Your task to perform on an android device: change keyboard looks Image 0: 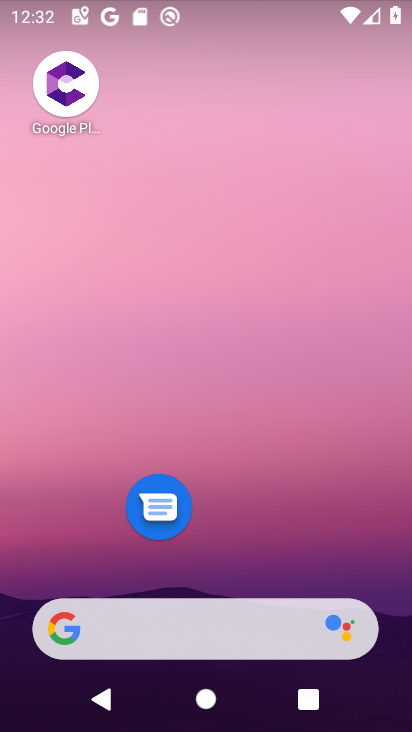
Step 0: drag from (299, 571) to (295, 121)
Your task to perform on an android device: change keyboard looks Image 1: 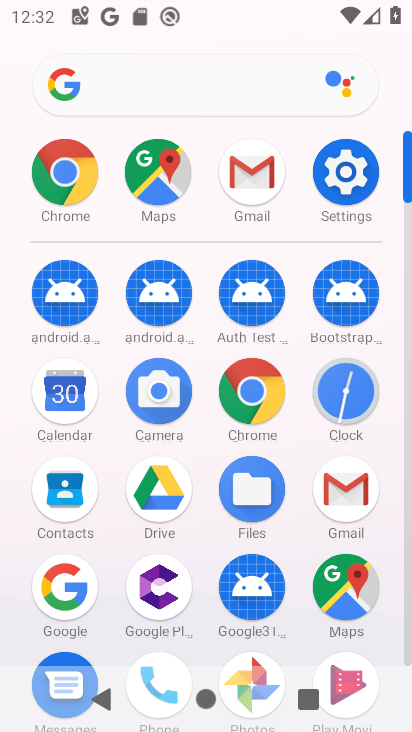
Step 1: click (350, 162)
Your task to perform on an android device: change keyboard looks Image 2: 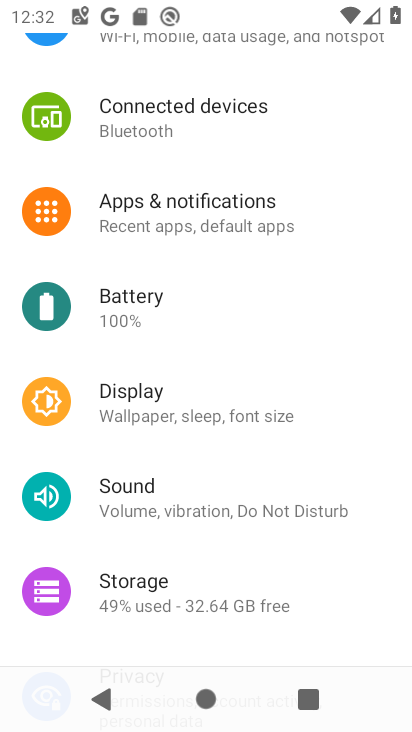
Step 2: drag from (326, 597) to (324, 279)
Your task to perform on an android device: change keyboard looks Image 3: 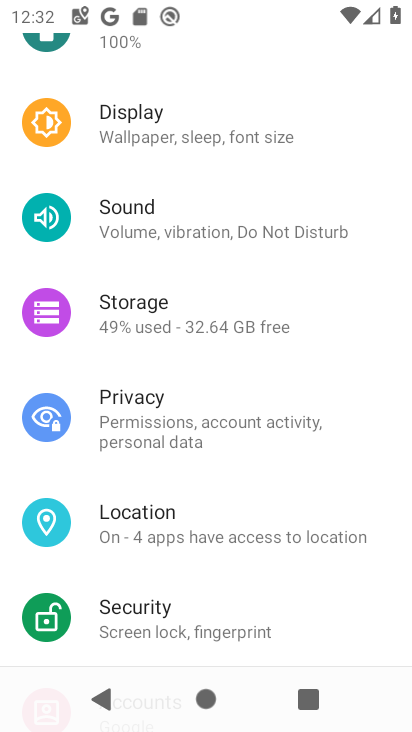
Step 3: drag from (316, 582) to (324, 265)
Your task to perform on an android device: change keyboard looks Image 4: 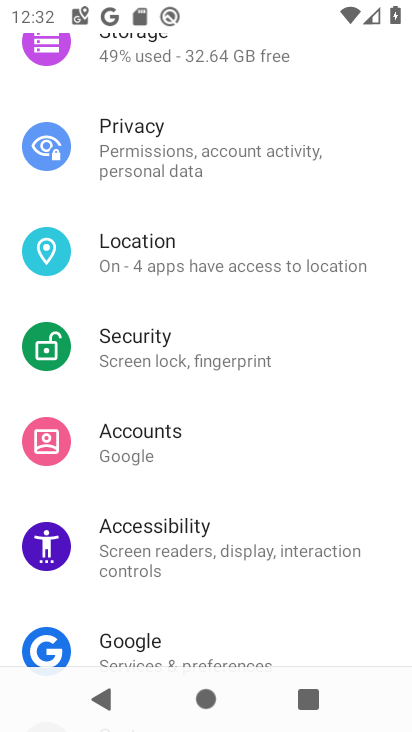
Step 4: drag from (321, 546) to (327, 240)
Your task to perform on an android device: change keyboard looks Image 5: 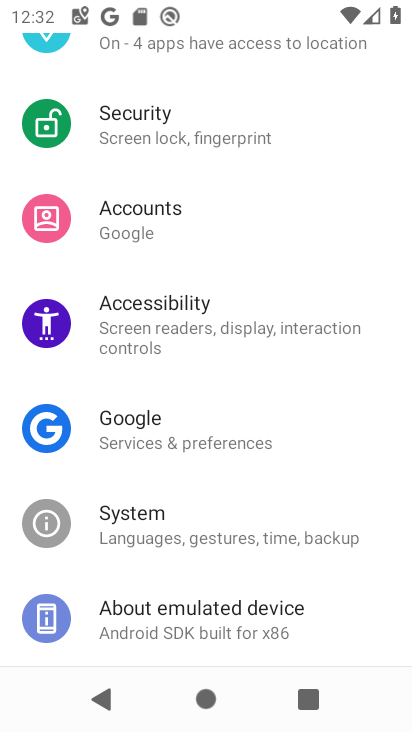
Step 5: click (179, 527)
Your task to perform on an android device: change keyboard looks Image 6: 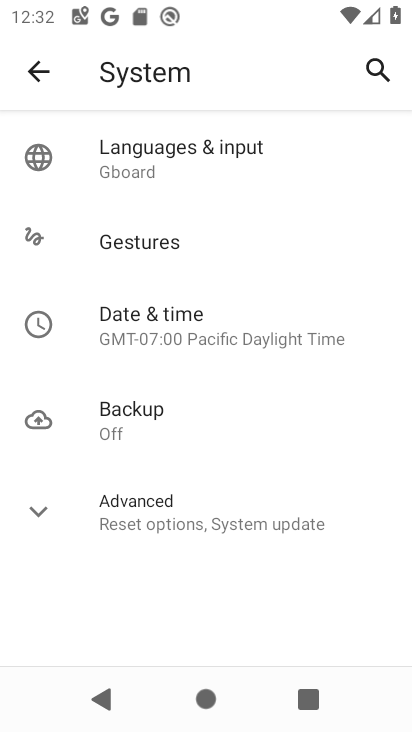
Step 6: click (146, 152)
Your task to perform on an android device: change keyboard looks Image 7: 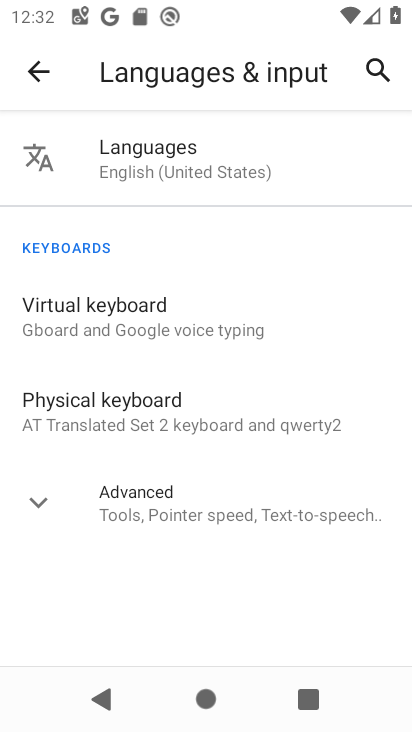
Step 7: click (81, 300)
Your task to perform on an android device: change keyboard looks Image 8: 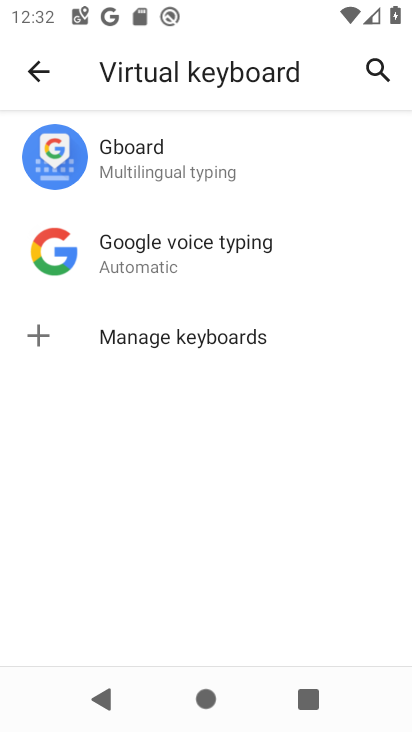
Step 8: click (111, 168)
Your task to perform on an android device: change keyboard looks Image 9: 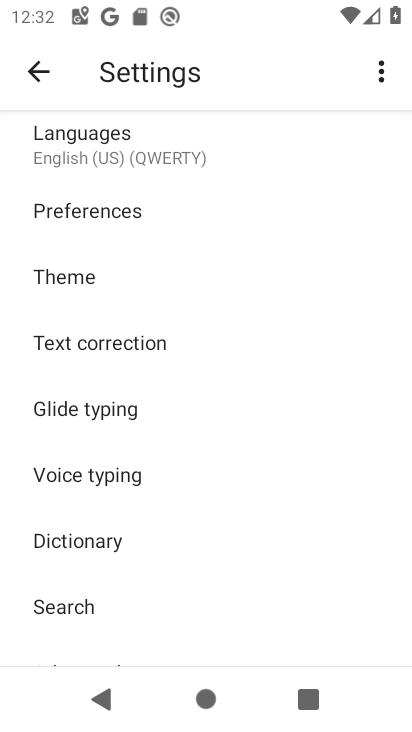
Step 9: click (47, 277)
Your task to perform on an android device: change keyboard looks Image 10: 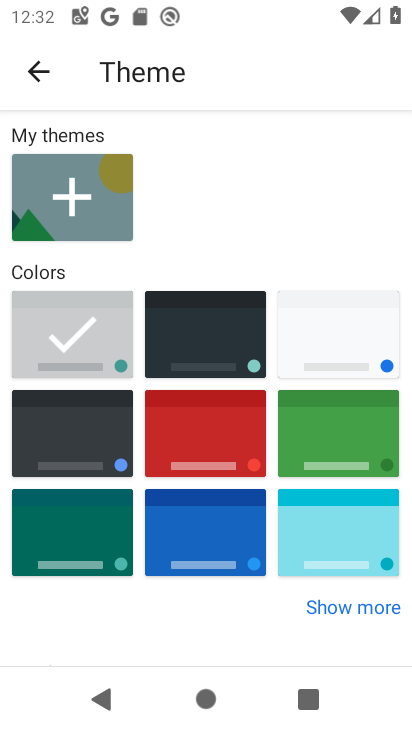
Step 10: click (183, 317)
Your task to perform on an android device: change keyboard looks Image 11: 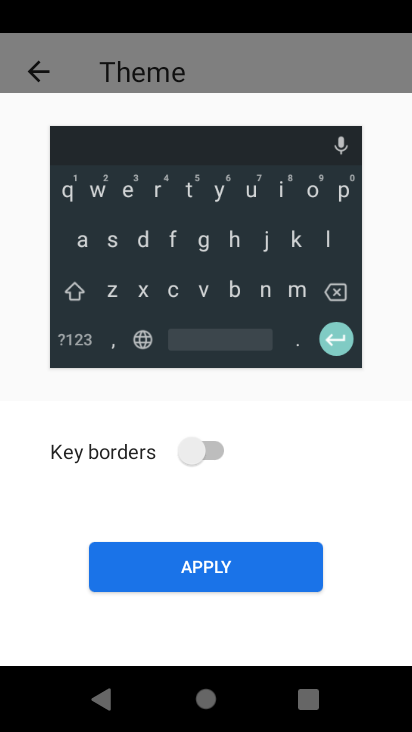
Step 11: click (196, 444)
Your task to perform on an android device: change keyboard looks Image 12: 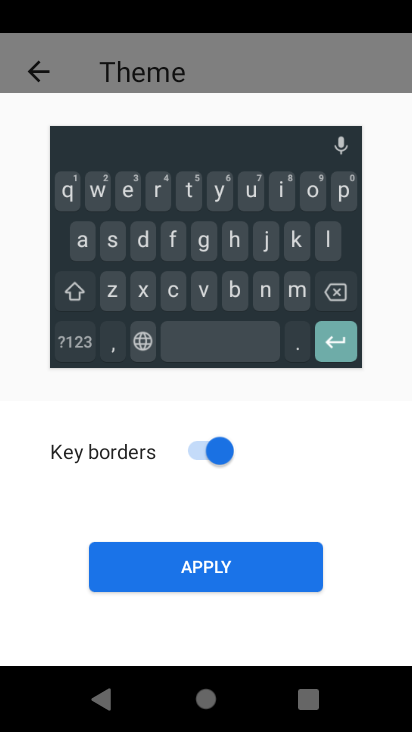
Step 12: click (240, 572)
Your task to perform on an android device: change keyboard looks Image 13: 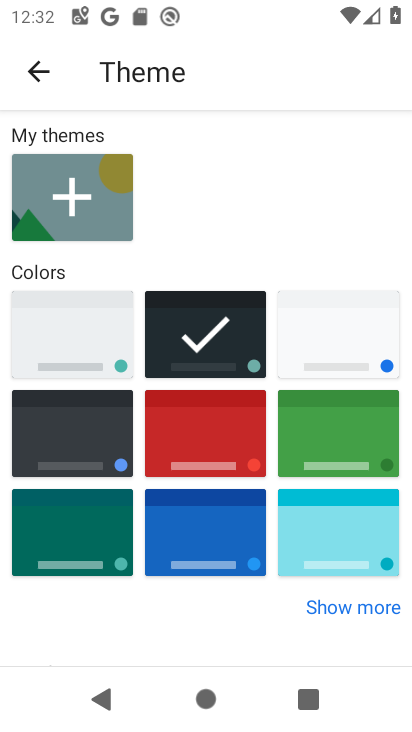
Step 13: task complete